Your task to perform on an android device: Toggle the flashlight Image 0: 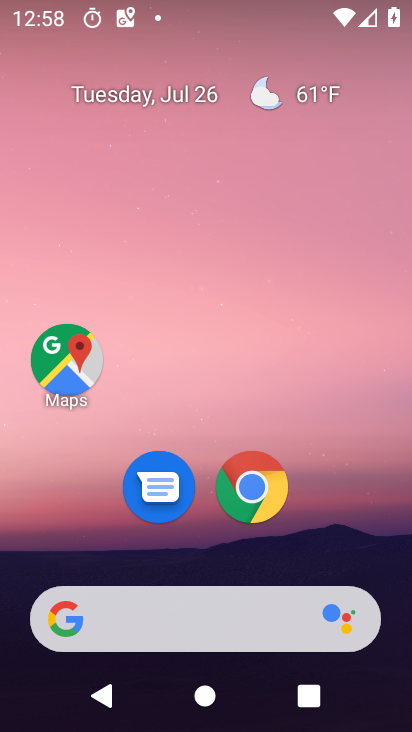
Step 0: drag from (138, 526) to (191, 15)
Your task to perform on an android device: Toggle the flashlight Image 1: 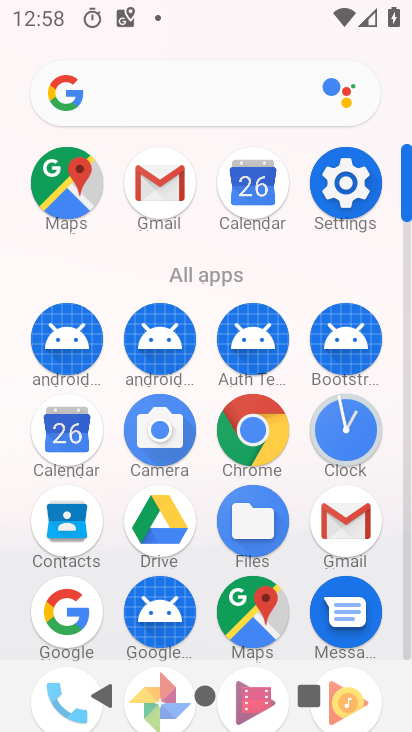
Step 1: click (337, 179)
Your task to perform on an android device: Toggle the flashlight Image 2: 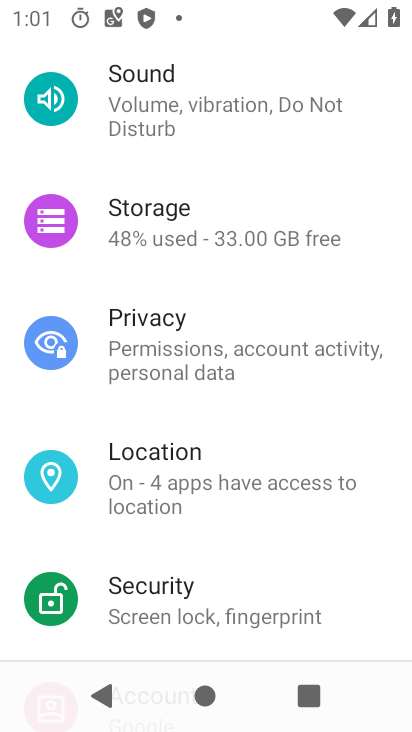
Step 2: drag from (188, 98) to (199, 620)
Your task to perform on an android device: Toggle the flashlight Image 3: 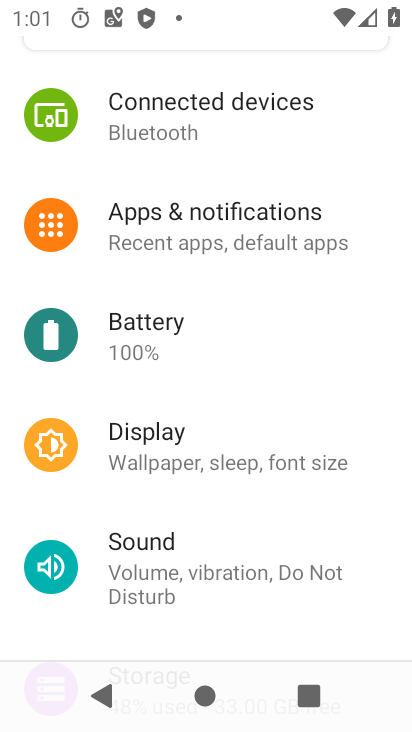
Step 3: drag from (187, 97) to (206, 713)
Your task to perform on an android device: Toggle the flashlight Image 4: 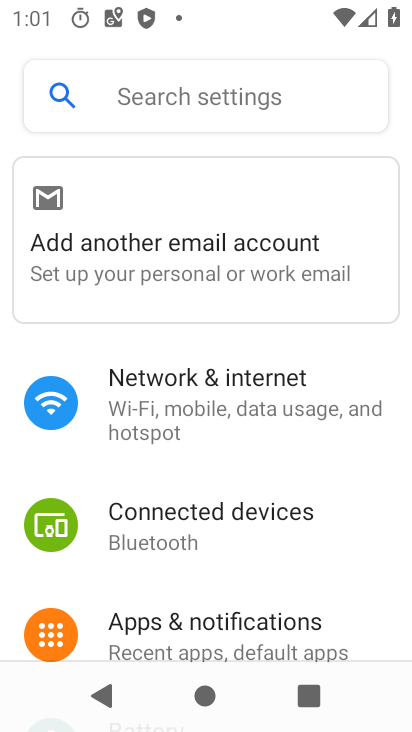
Step 4: click (162, 86)
Your task to perform on an android device: Toggle the flashlight Image 5: 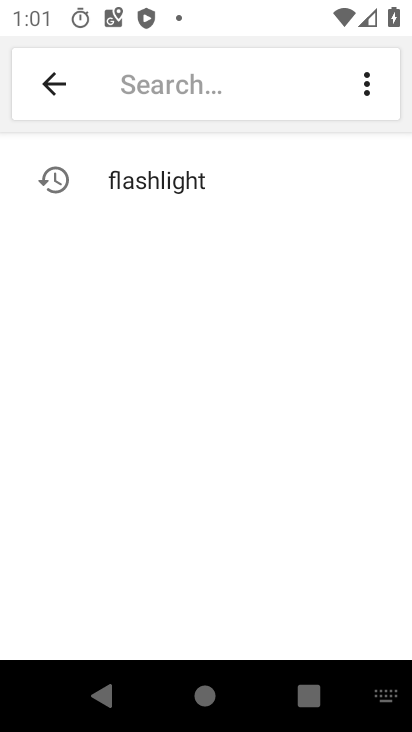
Step 5: click (157, 194)
Your task to perform on an android device: Toggle the flashlight Image 6: 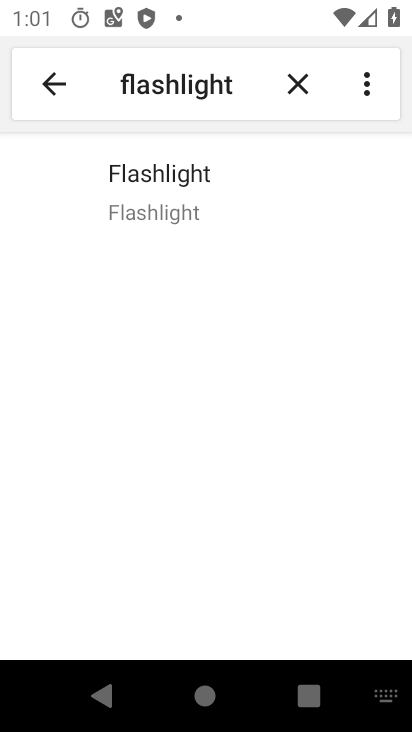
Step 6: click (149, 208)
Your task to perform on an android device: Toggle the flashlight Image 7: 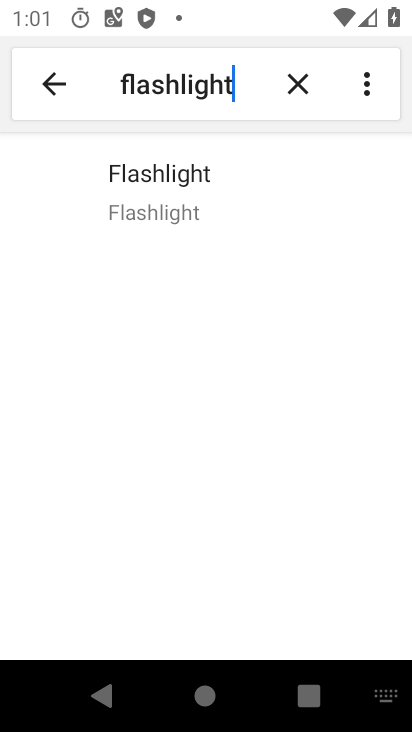
Step 7: task complete